Your task to perform on an android device: turn on translation in the chrome app Image 0: 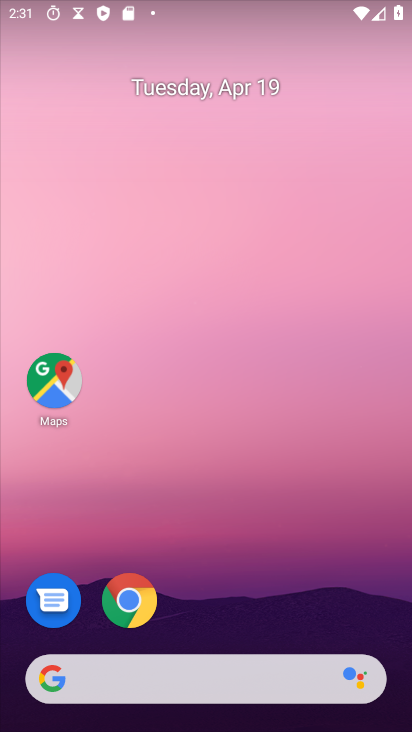
Step 0: drag from (274, 713) to (338, 246)
Your task to perform on an android device: turn on translation in the chrome app Image 1: 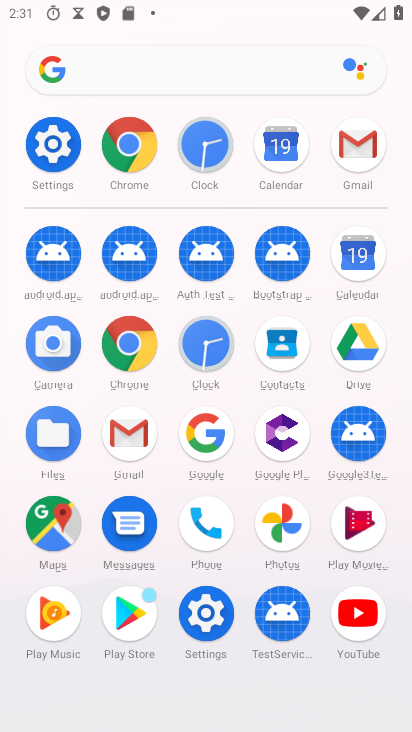
Step 1: click (134, 354)
Your task to perform on an android device: turn on translation in the chrome app Image 2: 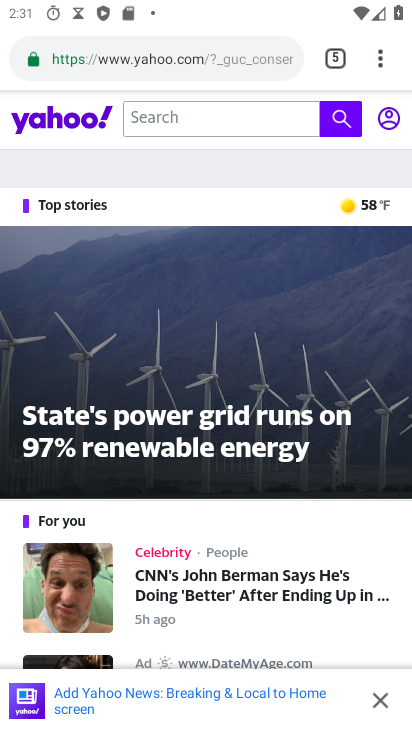
Step 2: click (388, 55)
Your task to perform on an android device: turn on translation in the chrome app Image 3: 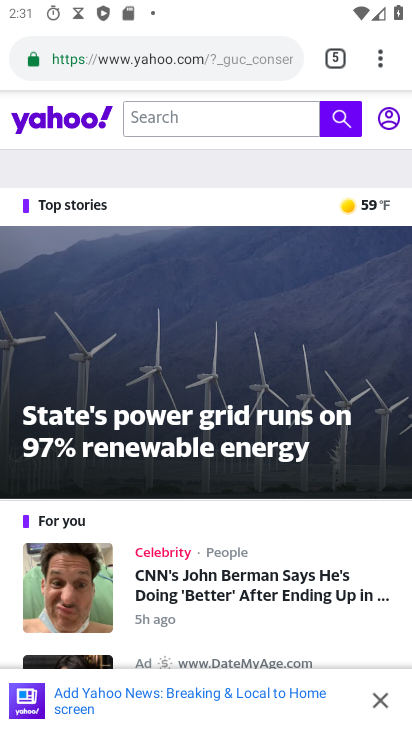
Step 3: click (388, 55)
Your task to perform on an android device: turn on translation in the chrome app Image 4: 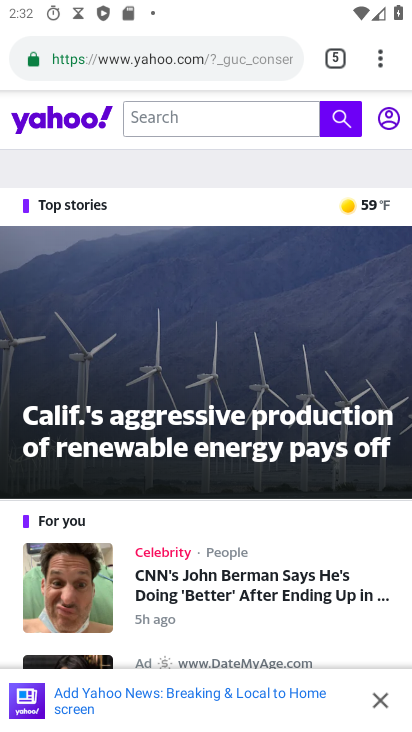
Step 4: click (377, 57)
Your task to perform on an android device: turn on translation in the chrome app Image 5: 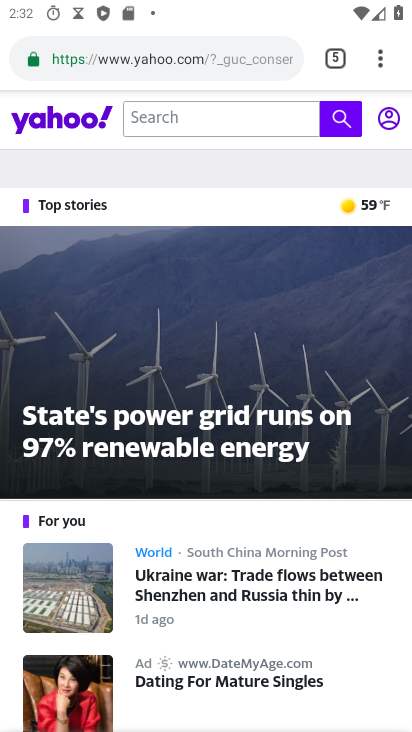
Step 5: click (377, 57)
Your task to perform on an android device: turn on translation in the chrome app Image 6: 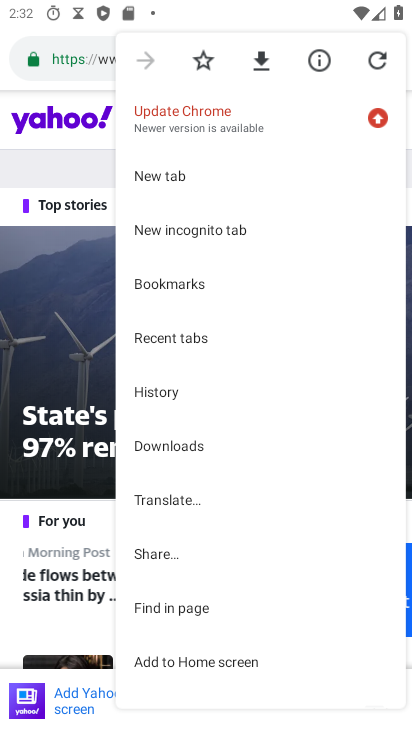
Step 6: drag from (177, 633) to (199, 489)
Your task to perform on an android device: turn on translation in the chrome app Image 7: 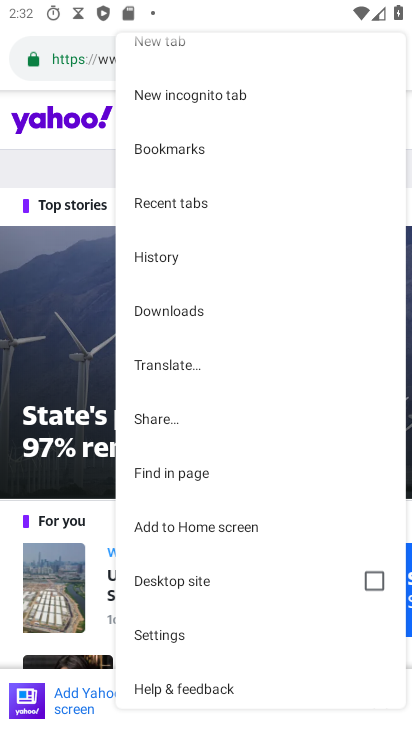
Step 7: click (170, 624)
Your task to perform on an android device: turn on translation in the chrome app Image 8: 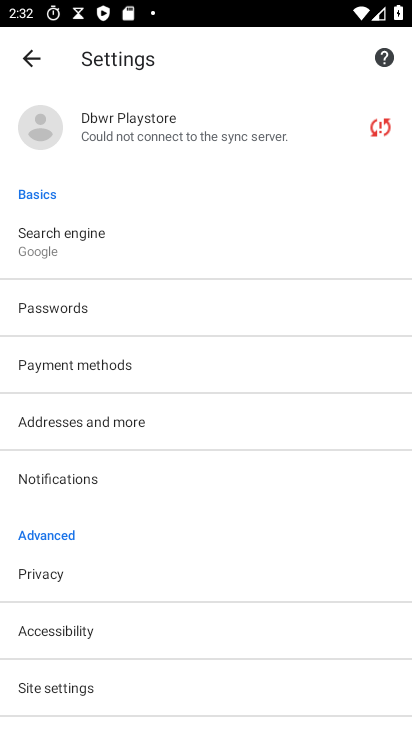
Step 8: drag from (103, 659) to (192, 429)
Your task to perform on an android device: turn on translation in the chrome app Image 9: 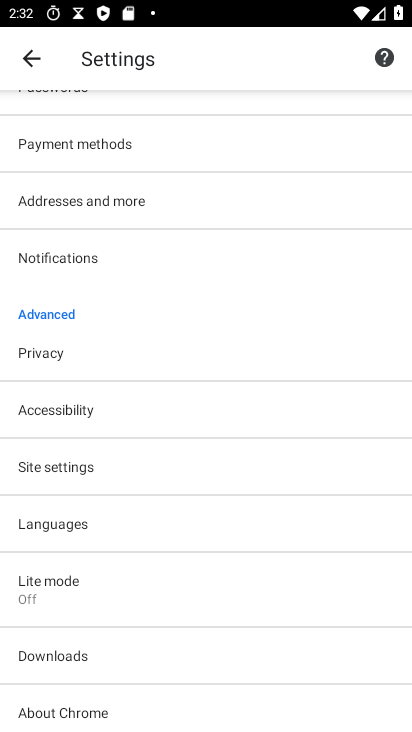
Step 9: click (83, 526)
Your task to perform on an android device: turn on translation in the chrome app Image 10: 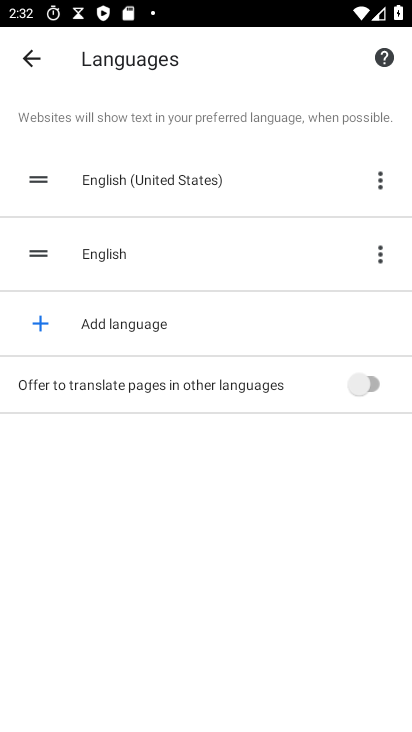
Step 10: click (273, 351)
Your task to perform on an android device: turn on translation in the chrome app Image 11: 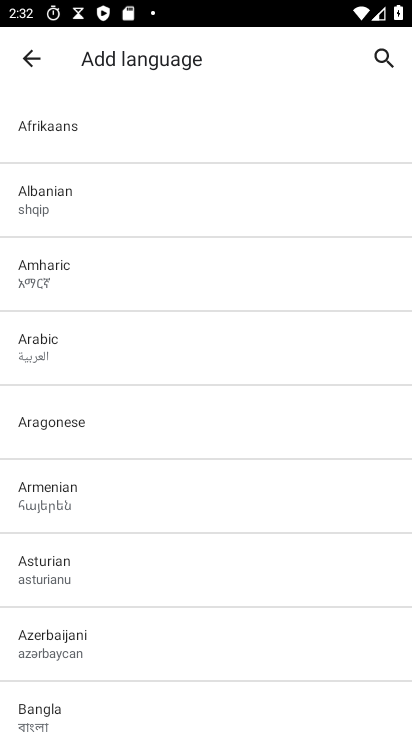
Step 11: task complete